Your task to perform on an android device: What's on my calendar today? Image 0: 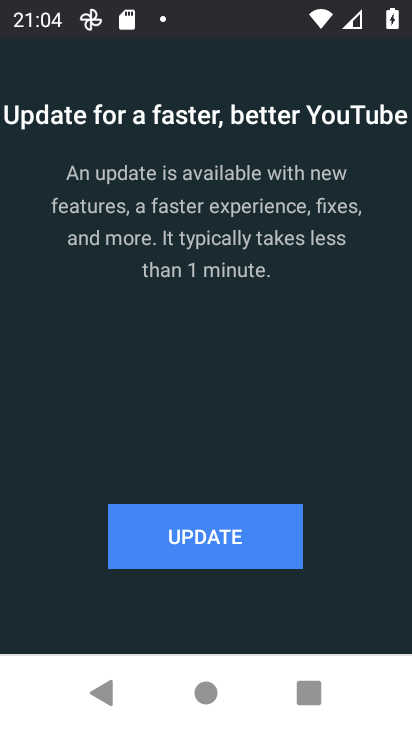
Step 0: press home button
Your task to perform on an android device: What's on my calendar today? Image 1: 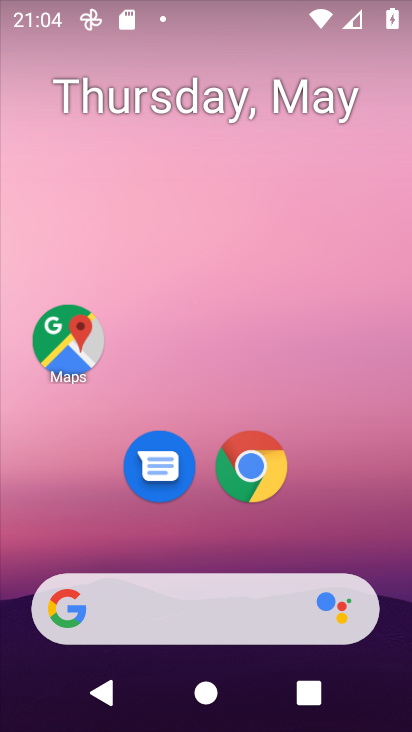
Step 1: drag from (362, 490) to (281, 16)
Your task to perform on an android device: What's on my calendar today? Image 2: 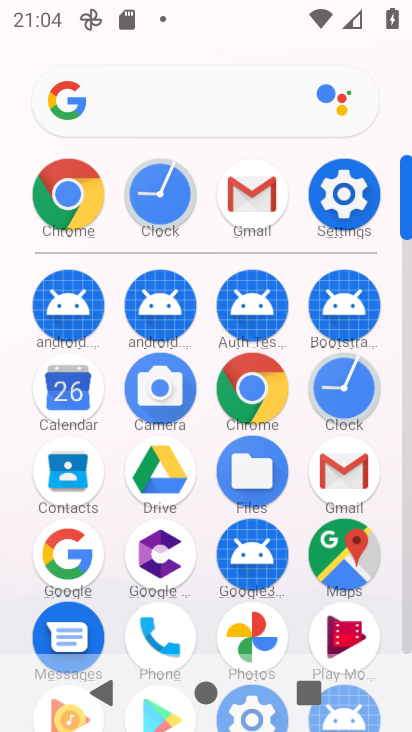
Step 2: click (73, 375)
Your task to perform on an android device: What's on my calendar today? Image 3: 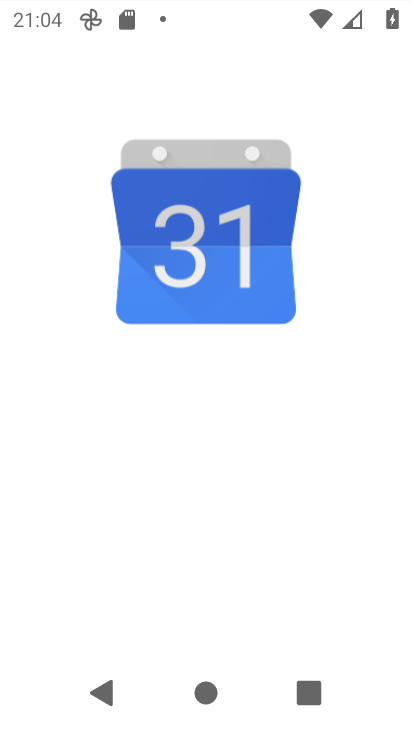
Step 3: task complete